Your task to perform on an android device: change notification settings in the gmail app Image 0: 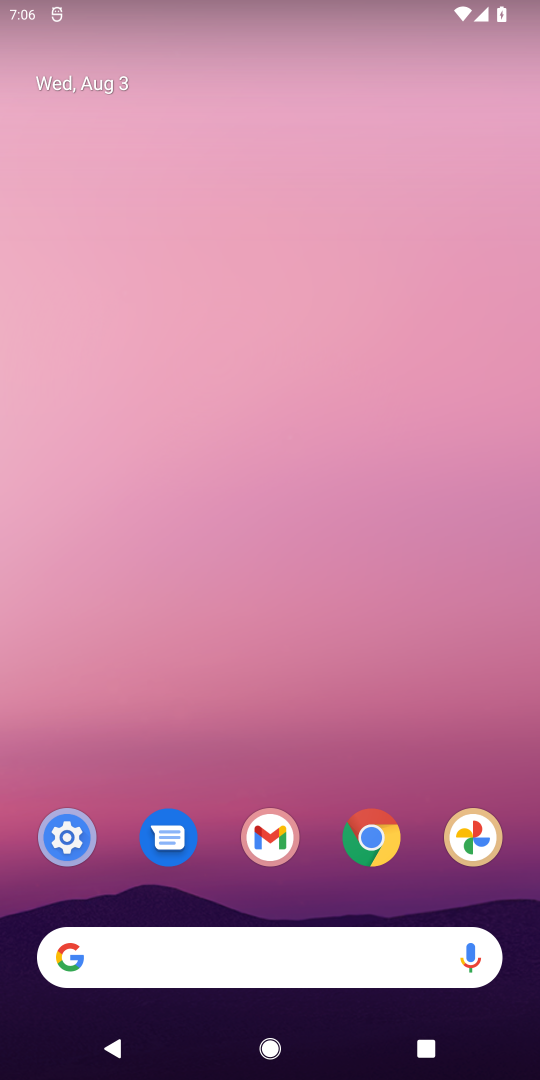
Step 0: press home button
Your task to perform on an android device: change notification settings in the gmail app Image 1: 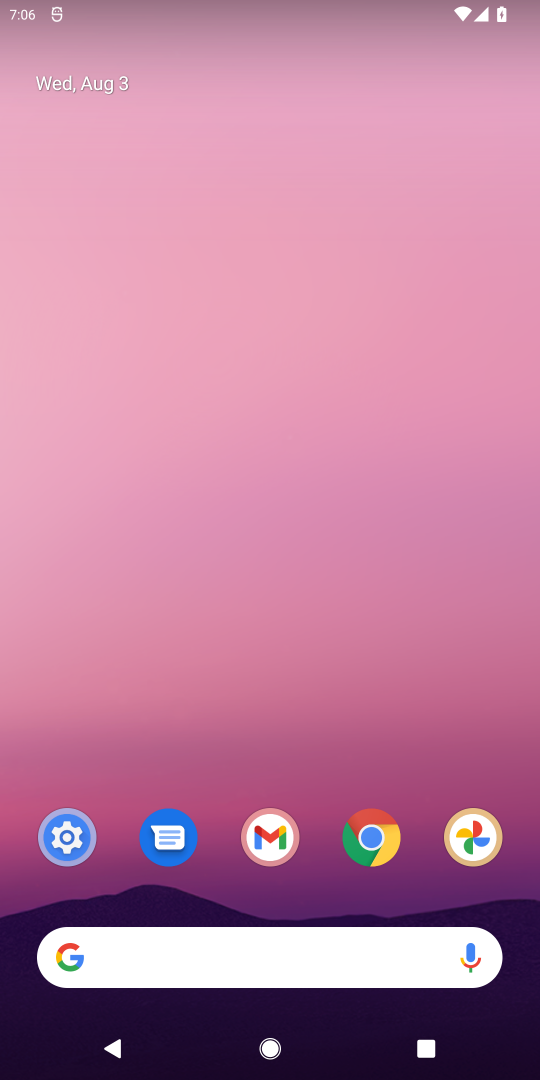
Step 1: drag from (351, 727) to (303, 42)
Your task to perform on an android device: change notification settings in the gmail app Image 2: 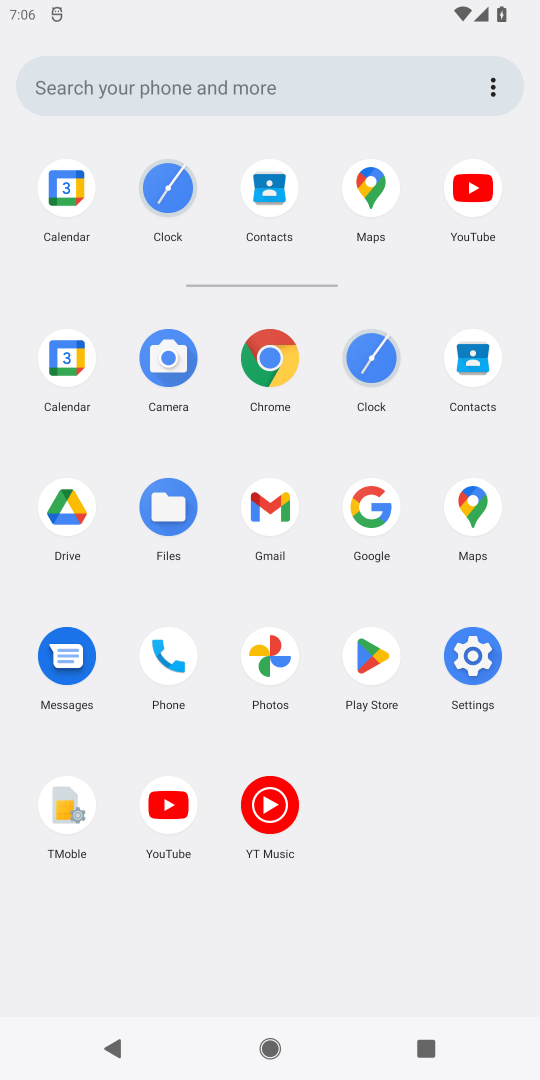
Step 2: click (253, 487)
Your task to perform on an android device: change notification settings in the gmail app Image 3: 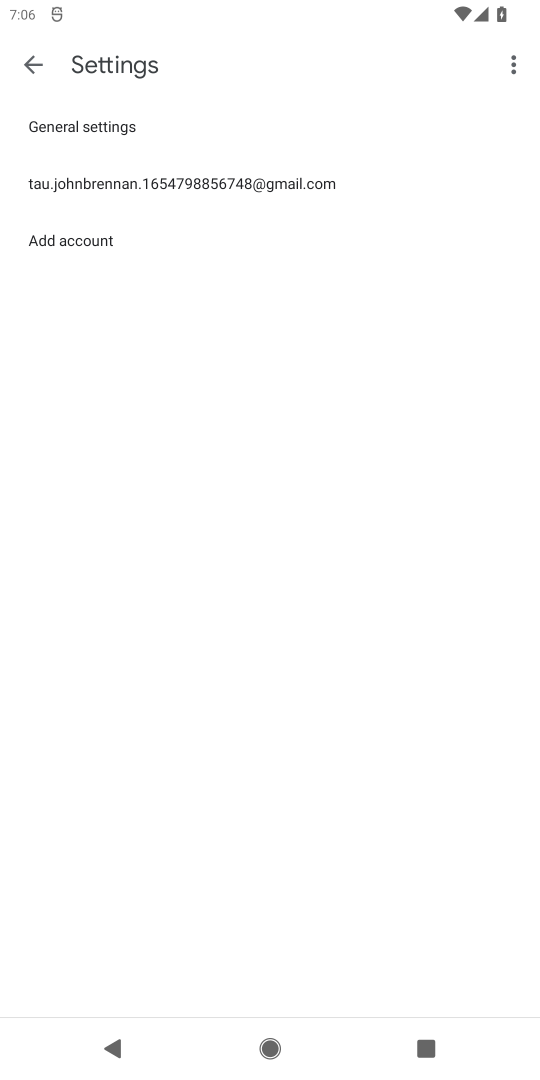
Step 3: click (81, 185)
Your task to perform on an android device: change notification settings in the gmail app Image 4: 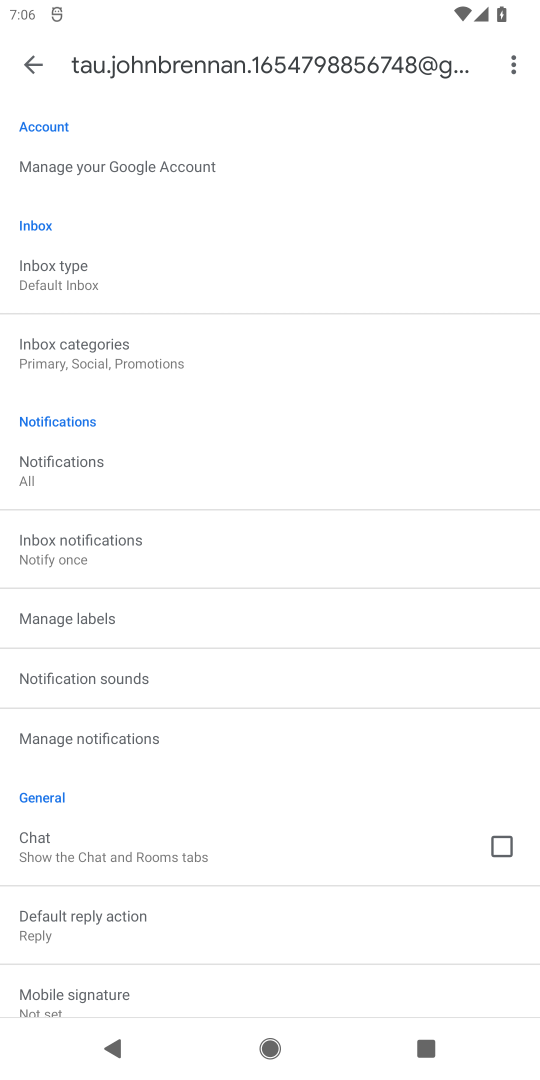
Step 4: click (105, 729)
Your task to perform on an android device: change notification settings in the gmail app Image 5: 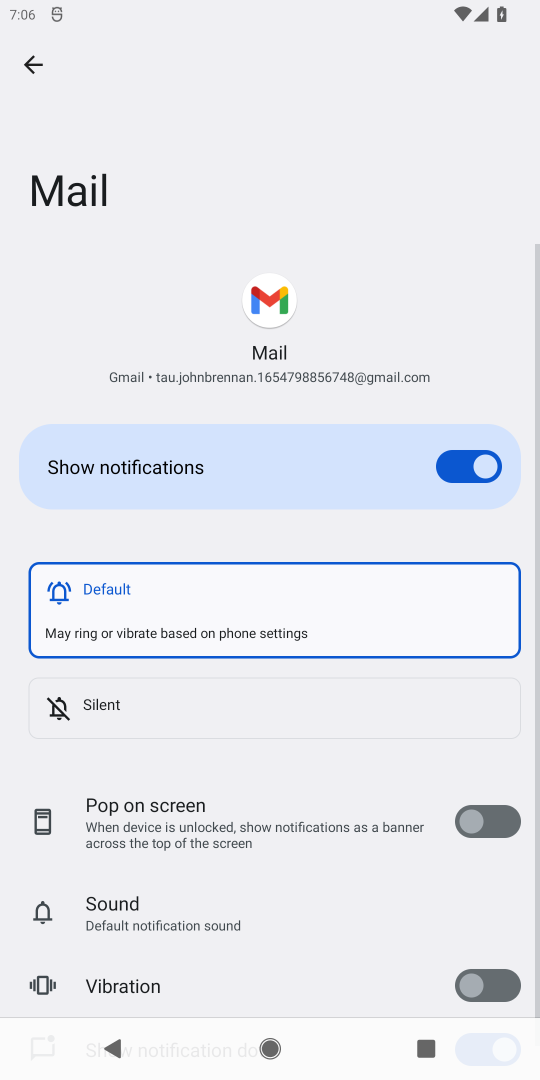
Step 5: click (458, 493)
Your task to perform on an android device: change notification settings in the gmail app Image 6: 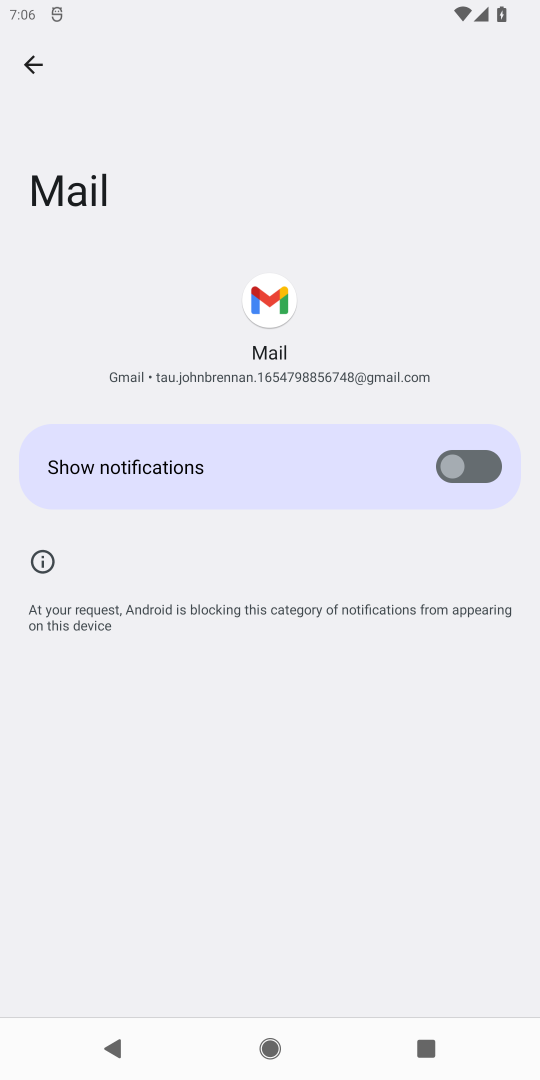
Step 6: task complete